Your task to perform on an android device: What is the capital of Japan? Image 0: 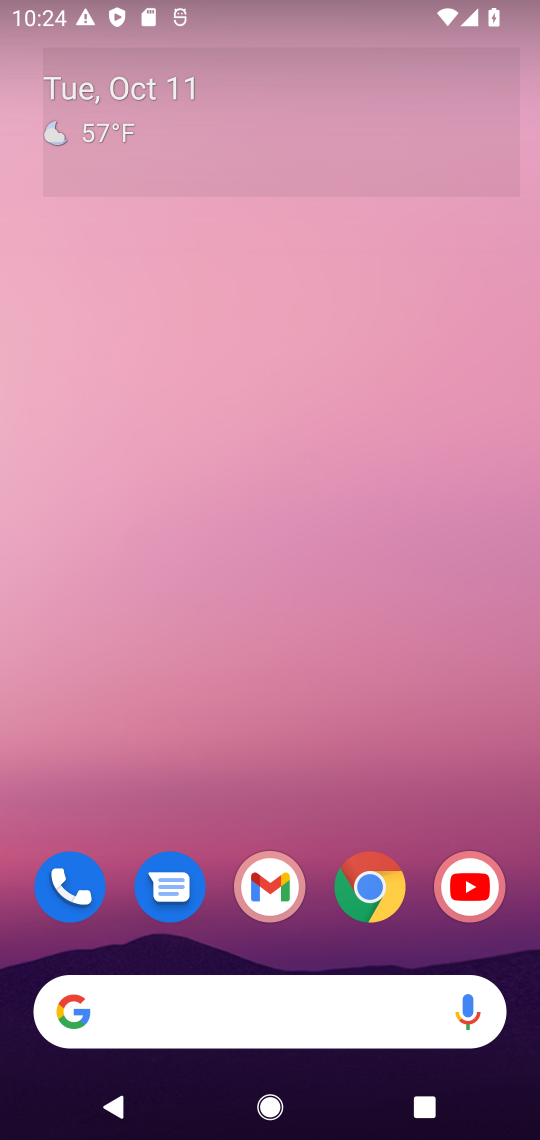
Step 0: press home button
Your task to perform on an android device: What is the capital of Japan? Image 1: 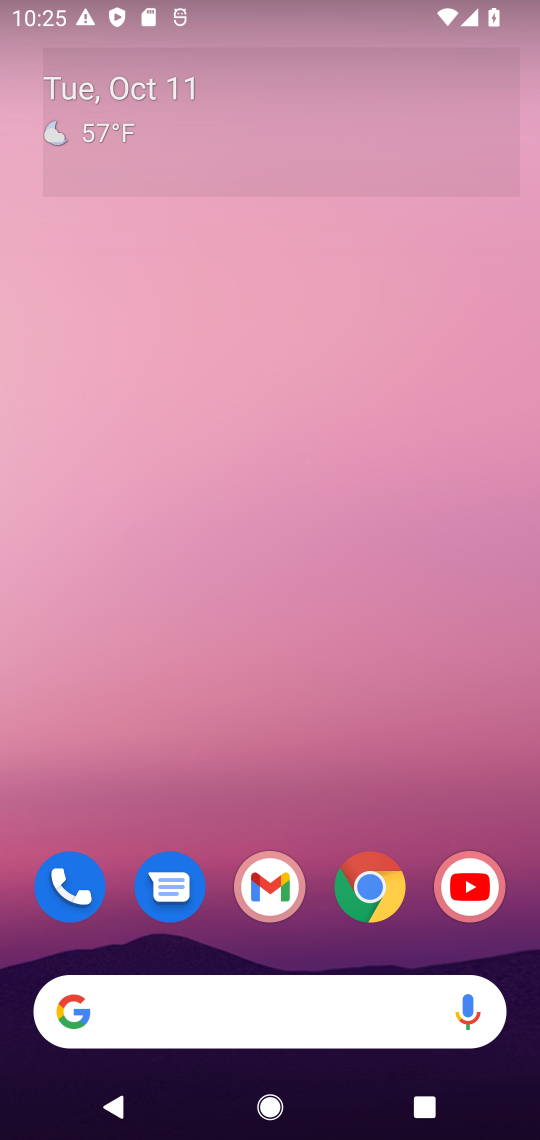
Step 1: click (170, 1014)
Your task to perform on an android device: What is the capital of Japan? Image 2: 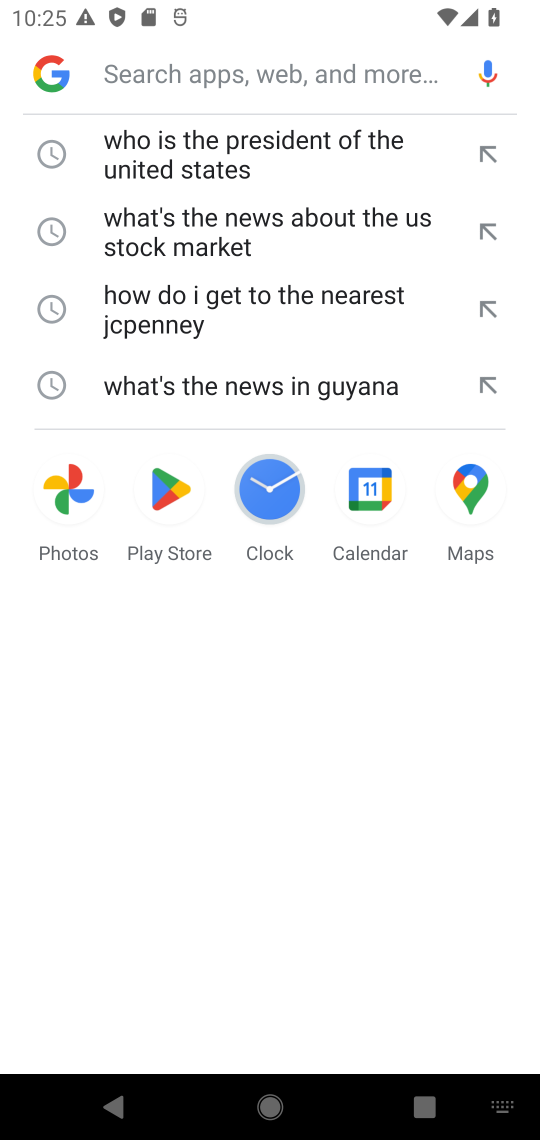
Step 2: type "What is the capital of Japan"
Your task to perform on an android device: What is the capital of Japan? Image 3: 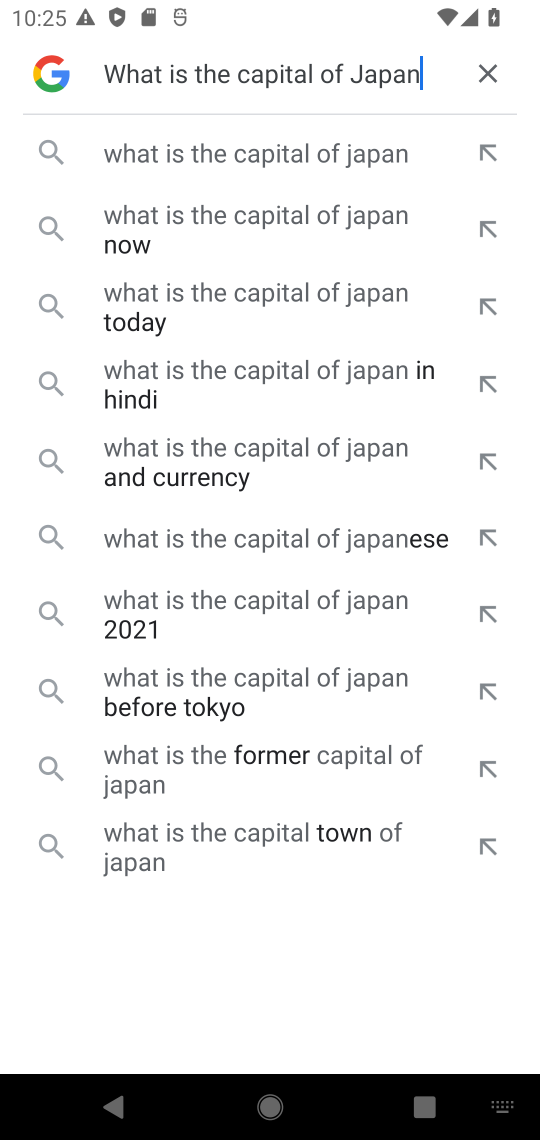
Step 3: press enter
Your task to perform on an android device: What is the capital of Japan? Image 4: 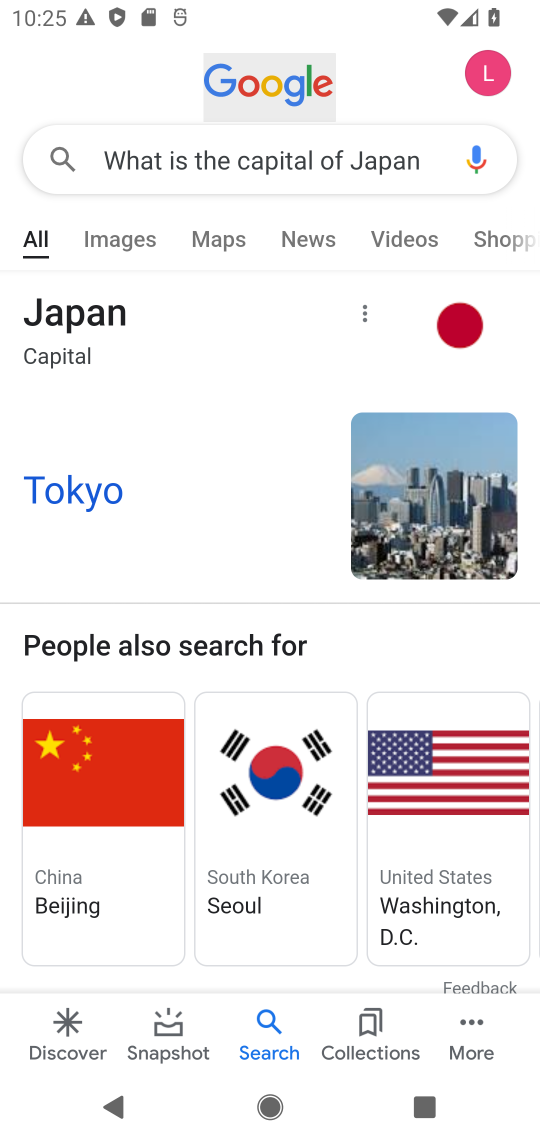
Step 4: task complete